Your task to perform on an android device: Open maps Image 0: 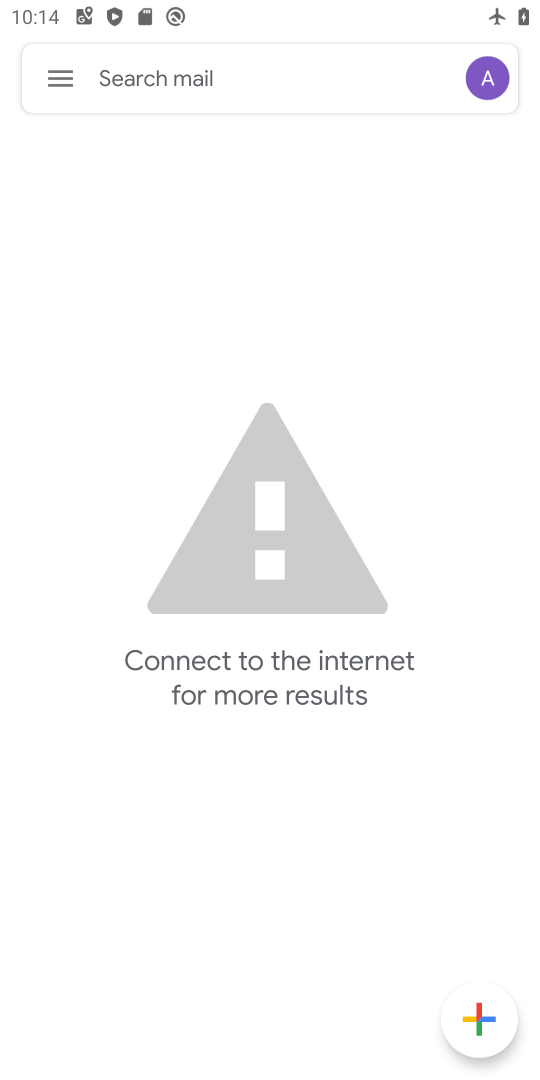
Step 0: press back button
Your task to perform on an android device: Open maps Image 1: 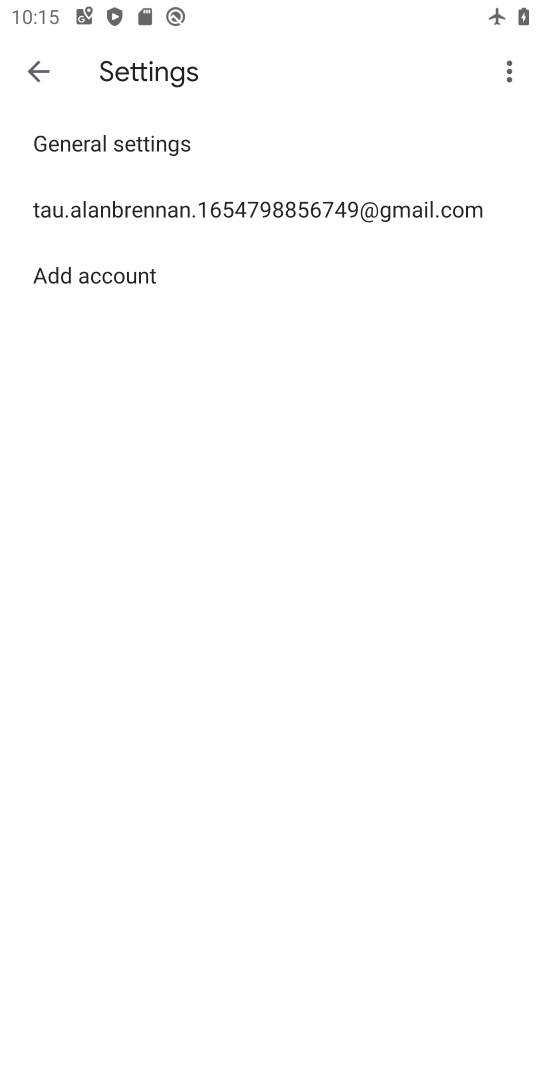
Step 1: press back button
Your task to perform on an android device: Open maps Image 2: 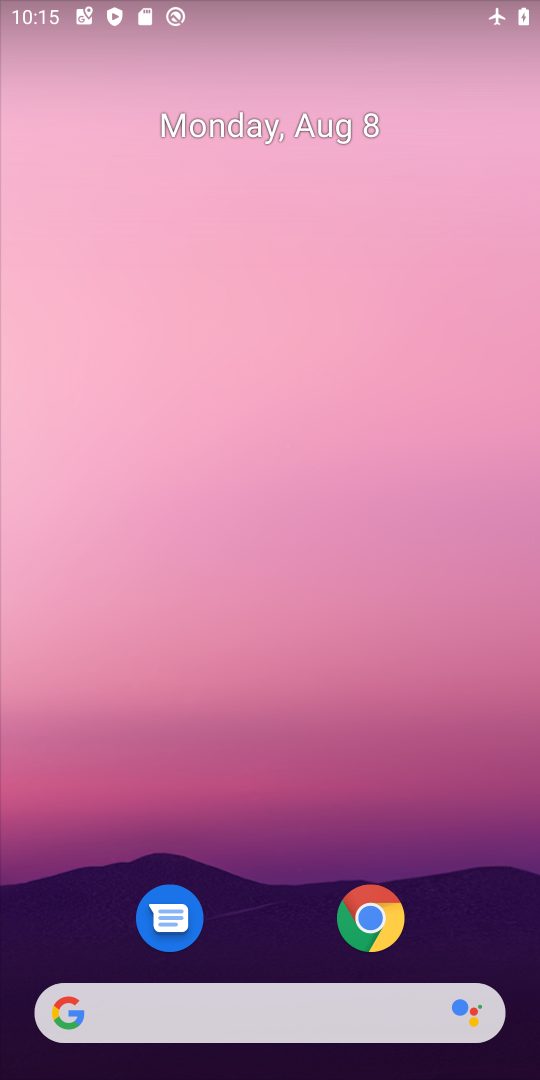
Step 2: drag from (247, 978) to (294, 4)
Your task to perform on an android device: Open maps Image 3: 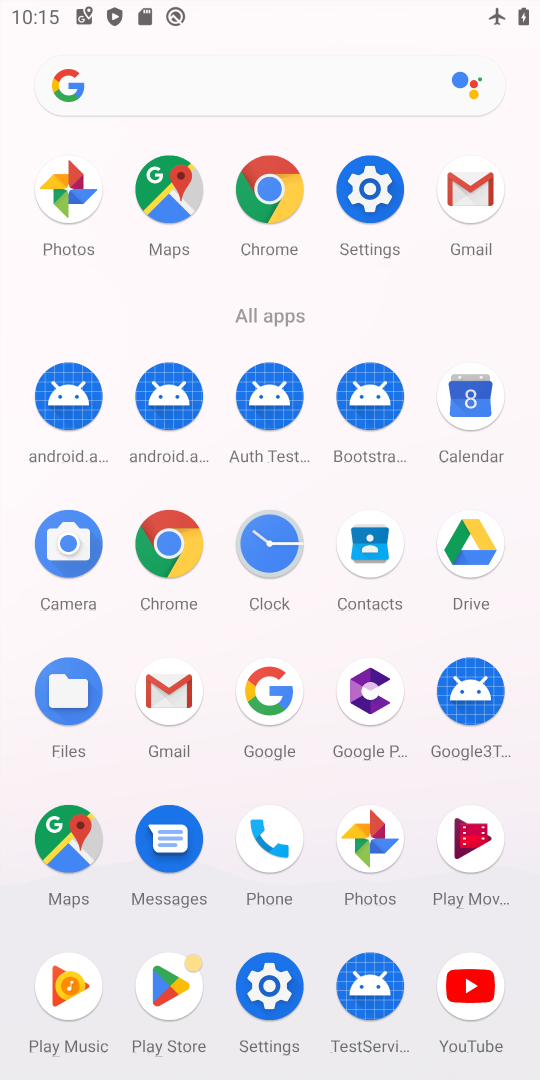
Step 3: click (89, 868)
Your task to perform on an android device: Open maps Image 4: 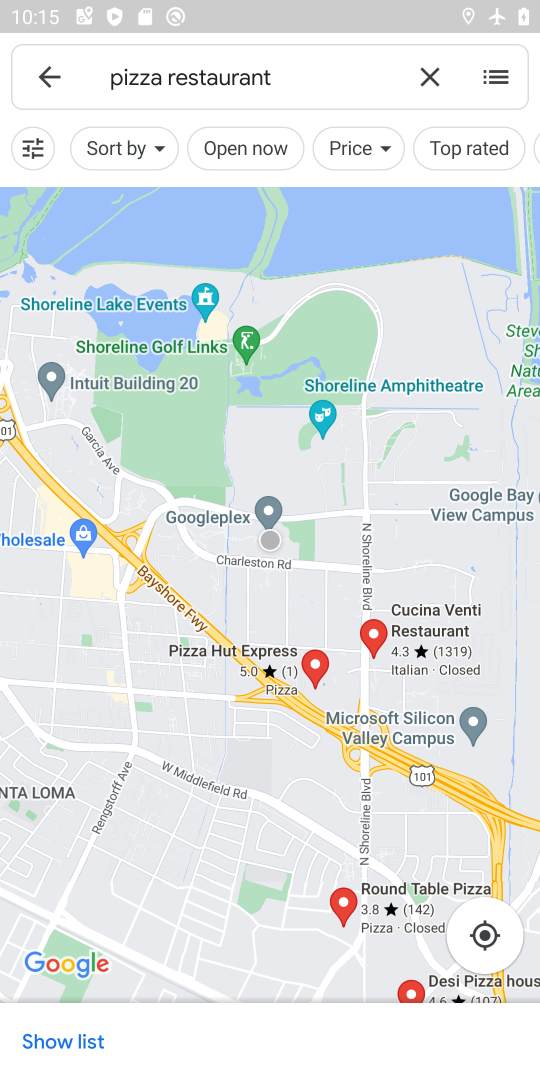
Step 4: click (42, 71)
Your task to perform on an android device: Open maps Image 5: 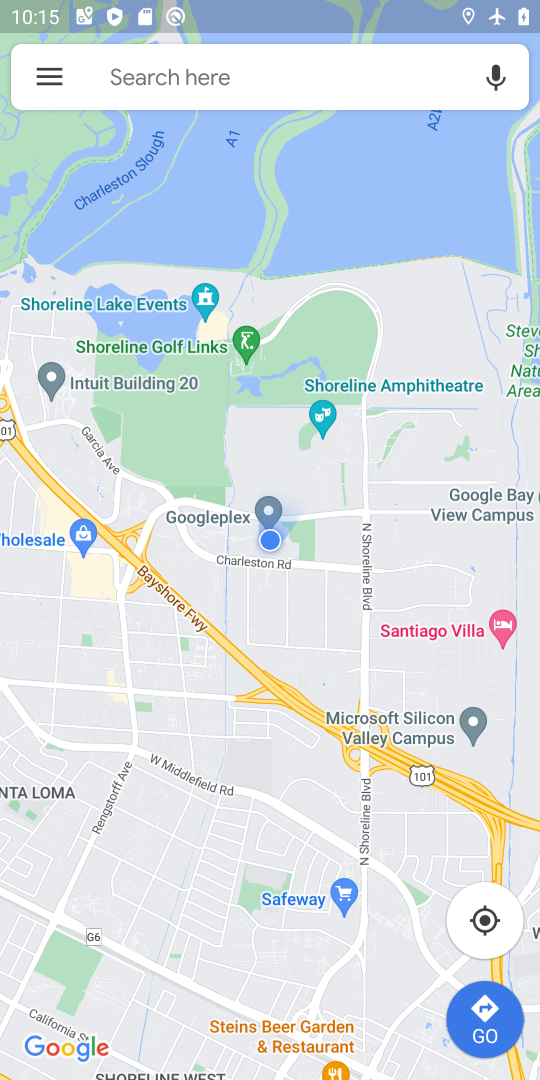
Step 5: task complete